Your task to perform on an android device: manage bookmarks in the chrome app Image 0: 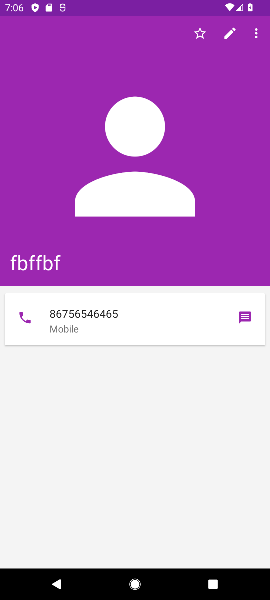
Step 0: press home button
Your task to perform on an android device: manage bookmarks in the chrome app Image 1: 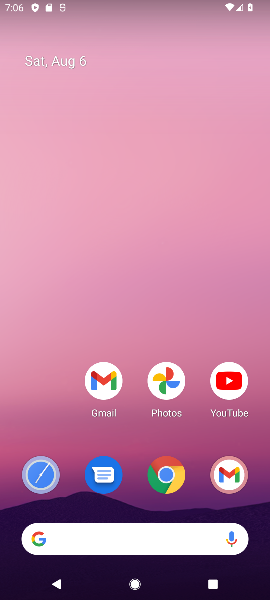
Step 1: click (169, 466)
Your task to perform on an android device: manage bookmarks in the chrome app Image 2: 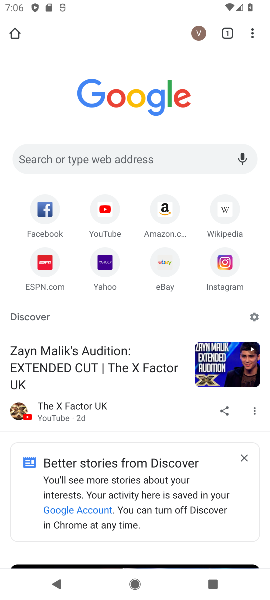
Step 2: click (251, 38)
Your task to perform on an android device: manage bookmarks in the chrome app Image 3: 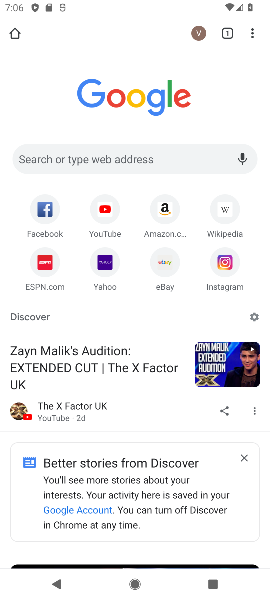
Step 3: drag from (251, 32) to (184, 193)
Your task to perform on an android device: manage bookmarks in the chrome app Image 4: 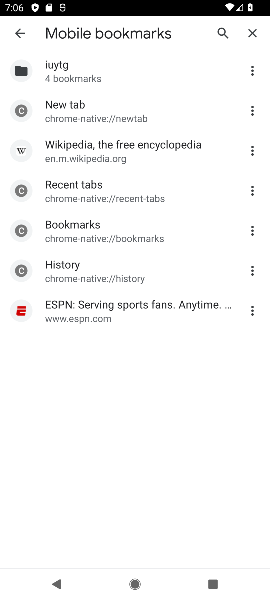
Step 4: click (251, 264)
Your task to perform on an android device: manage bookmarks in the chrome app Image 5: 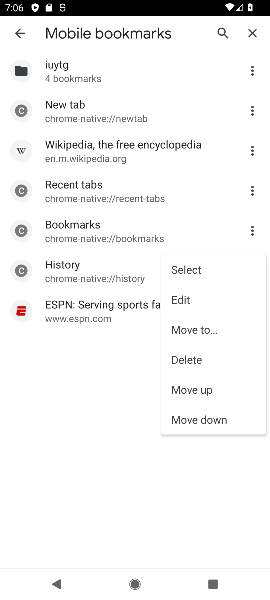
Step 5: click (217, 393)
Your task to perform on an android device: manage bookmarks in the chrome app Image 6: 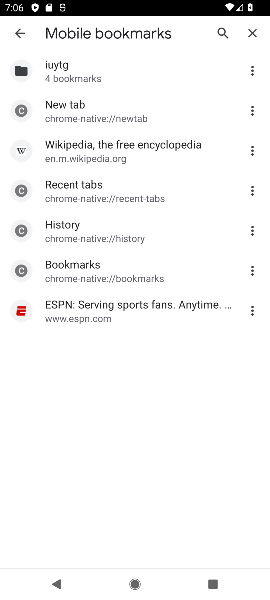
Step 6: click (245, 230)
Your task to perform on an android device: manage bookmarks in the chrome app Image 7: 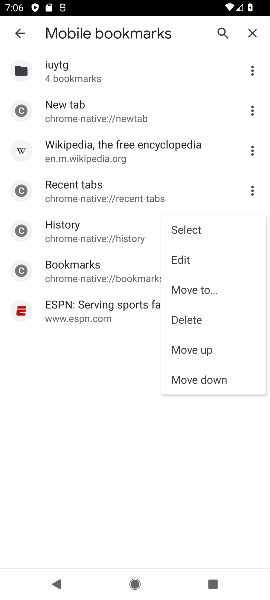
Step 7: click (85, 386)
Your task to perform on an android device: manage bookmarks in the chrome app Image 8: 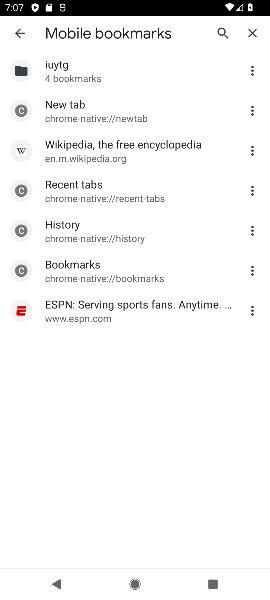
Step 8: click (249, 300)
Your task to perform on an android device: manage bookmarks in the chrome app Image 9: 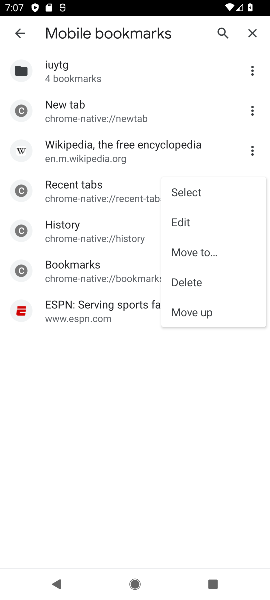
Step 9: click (214, 280)
Your task to perform on an android device: manage bookmarks in the chrome app Image 10: 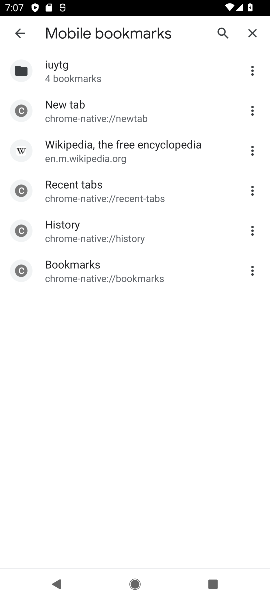
Step 10: task complete